Your task to perform on an android device: Open Google Chrome Image 0: 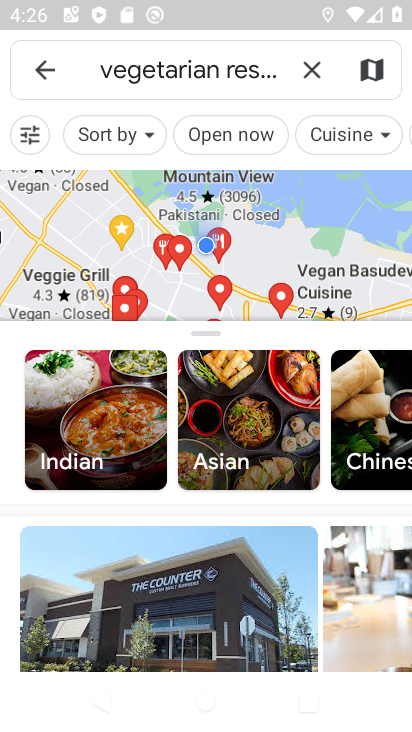
Step 0: press home button
Your task to perform on an android device: Open Google Chrome Image 1: 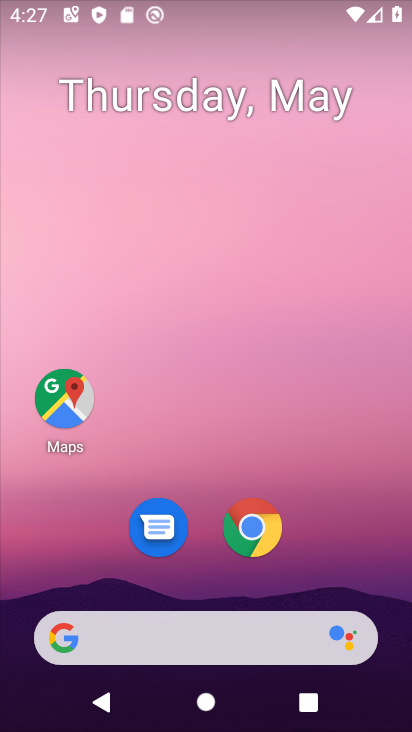
Step 1: drag from (328, 354) to (326, 36)
Your task to perform on an android device: Open Google Chrome Image 2: 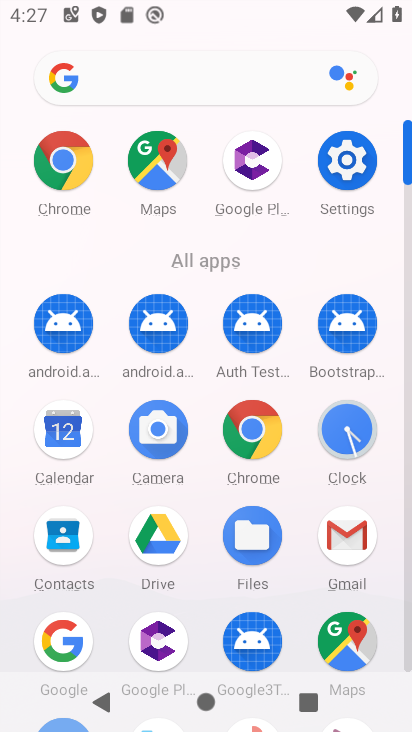
Step 2: click (62, 652)
Your task to perform on an android device: Open Google Chrome Image 3: 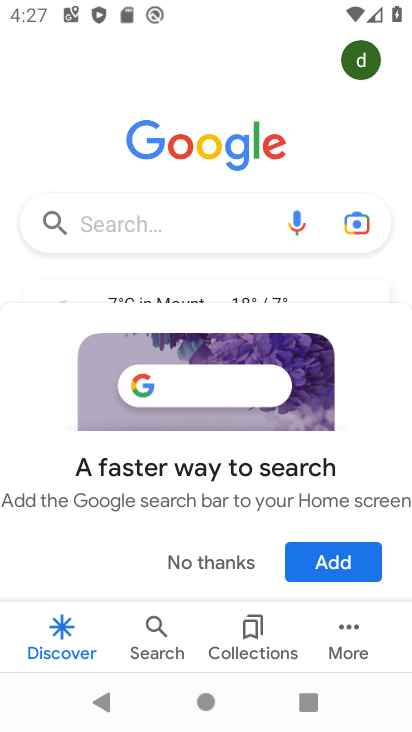
Step 3: task complete